Your task to perform on an android device: Is it going to rain this weekend? Image 0: 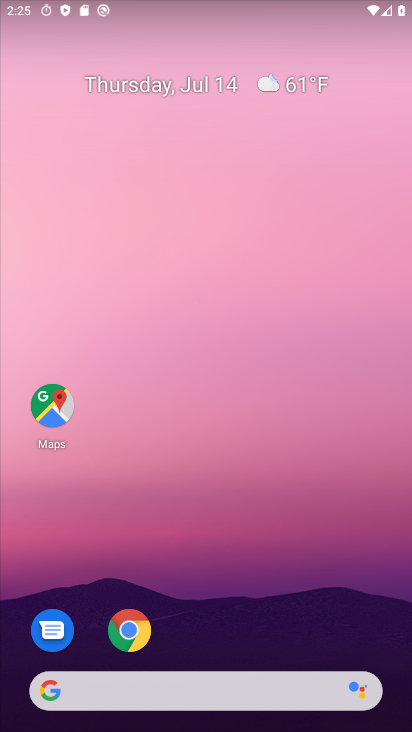
Step 0: click (131, 676)
Your task to perform on an android device: Is it going to rain this weekend? Image 1: 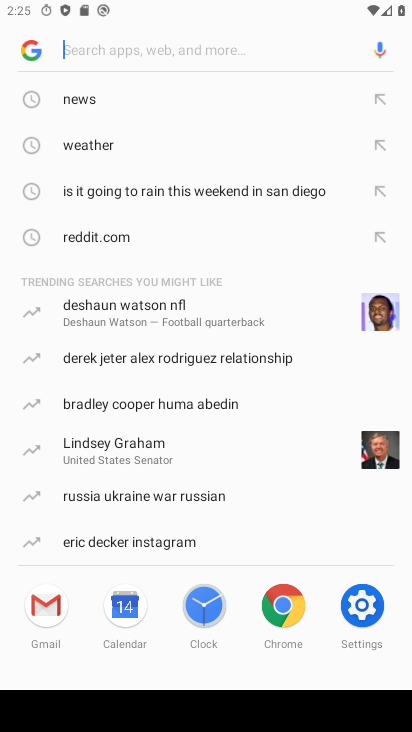
Step 1: type "is it going to rain this weekend?"
Your task to perform on an android device: Is it going to rain this weekend? Image 2: 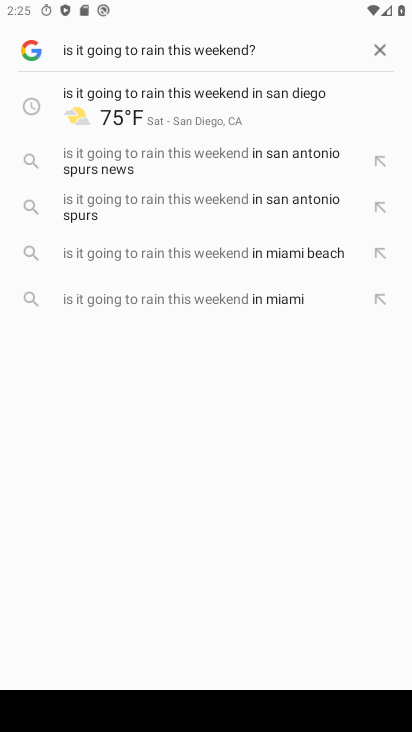
Step 2: click (67, 119)
Your task to perform on an android device: Is it going to rain this weekend? Image 3: 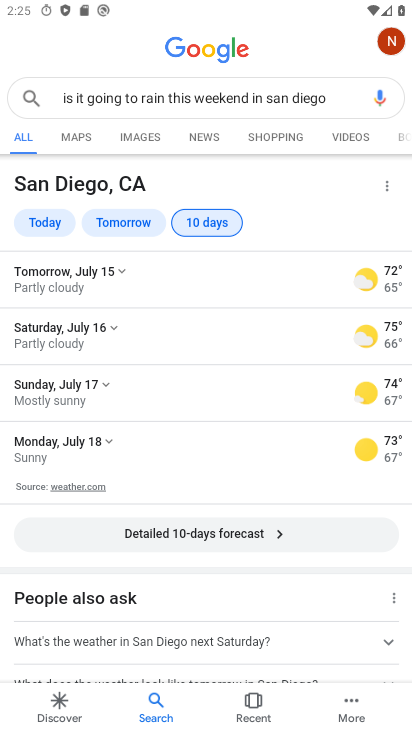
Step 3: task complete